Your task to perform on an android device: open app "Lyft - Rideshare, Bikes, Scooters & Transit" (install if not already installed) Image 0: 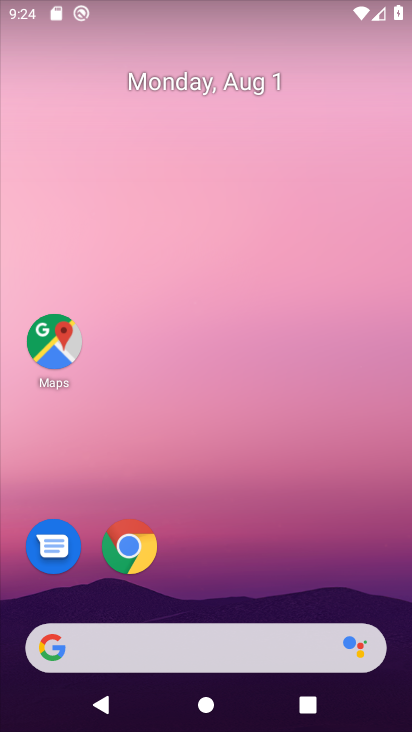
Step 0: press home button
Your task to perform on an android device: open app "Lyft - Rideshare, Bikes, Scooters & Transit" (install if not already installed) Image 1: 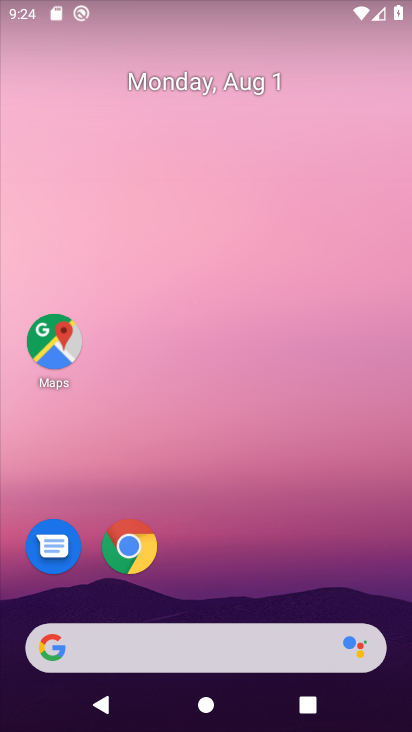
Step 1: drag from (200, 598) to (238, 0)
Your task to perform on an android device: open app "Lyft - Rideshare, Bikes, Scooters & Transit" (install if not already installed) Image 2: 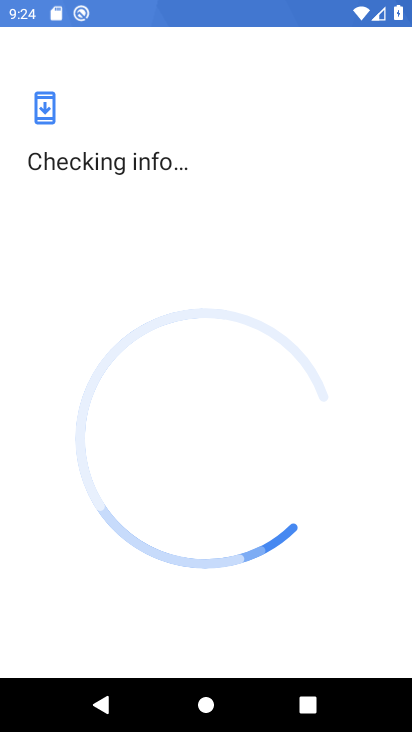
Step 2: press home button
Your task to perform on an android device: open app "Lyft - Rideshare, Bikes, Scooters & Transit" (install if not already installed) Image 3: 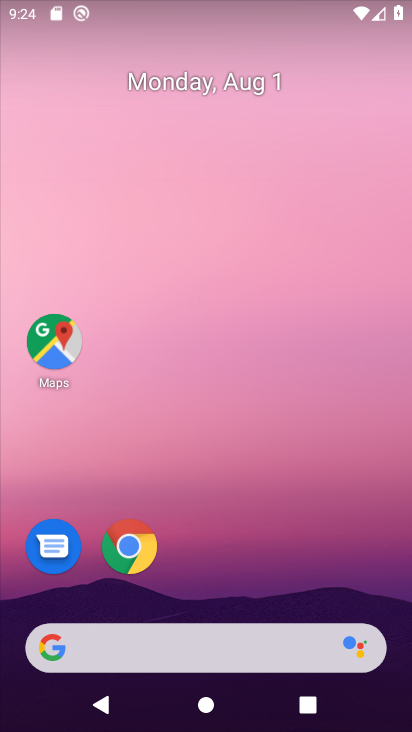
Step 3: drag from (208, 606) to (245, 2)
Your task to perform on an android device: open app "Lyft - Rideshare, Bikes, Scooters & Transit" (install if not already installed) Image 4: 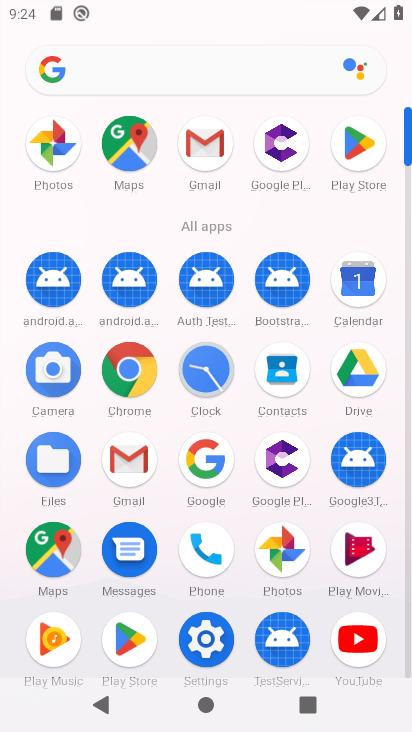
Step 4: click (353, 139)
Your task to perform on an android device: open app "Lyft - Rideshare, Bikes, Scooters & Transit" (install if not already installed) Image 5: 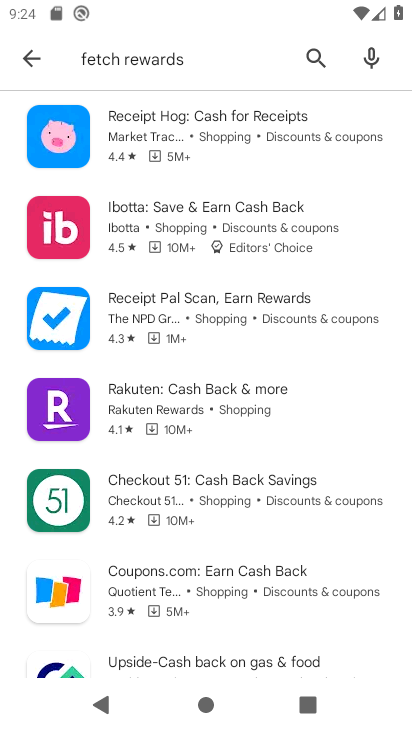
Step 5: click (313, 52)
Your task to perform on an android device: open app "Lyft - Rideshare, Bikes, Scooters & Transit" (install if not already installed) Image 6: 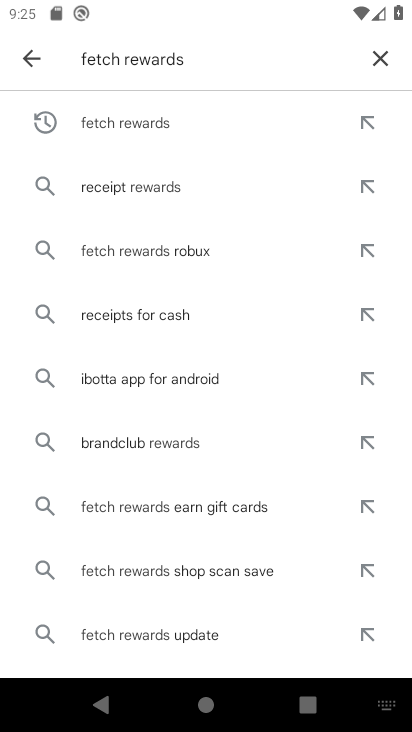
Step 6: click (384, 53)
Your task to perform on an android device: open app "Lyft - Rideshare, Bikes, Scooters & Transit" (install if not already installed) Image 7: 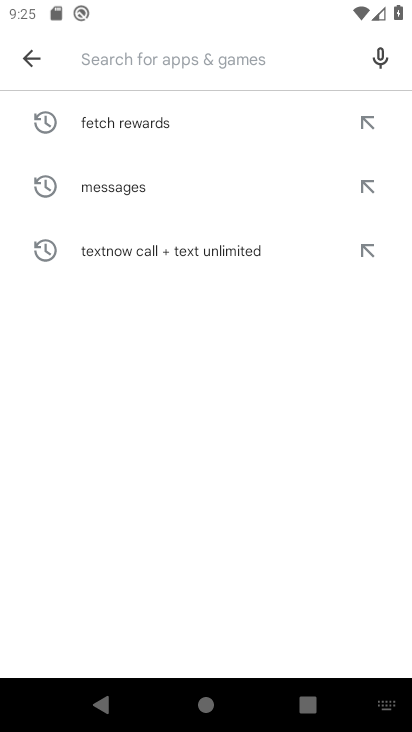
Step 7: type "Lyft"
Your task to perform on an android device: open app "Lyft - Rideshare, Bikes, Scooters & Transit" (install if not already installed) Image 8: 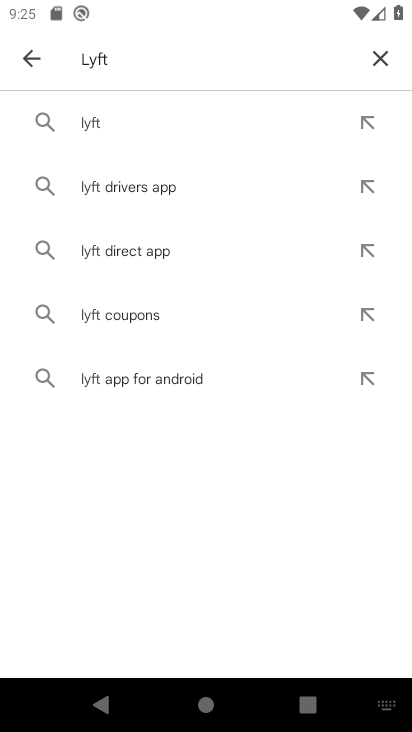
Step 8: click (109, 111)
Your task to perform on an android device: open app "Lyft - Rideshare, Bikes, Scooters & Transit" (install if not already installed) Image 9: 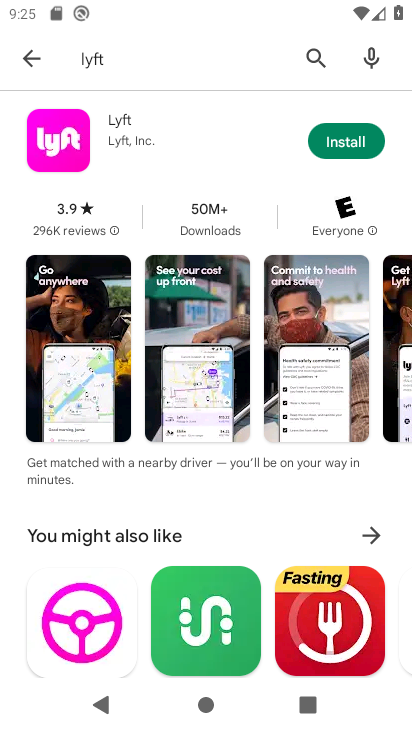
Step 9: click (337, 144)
Your task to perform on an android device: open app "Lyft - Rideshare, Bikes, Scooters & Transit" (install if not already installed) Image 10: 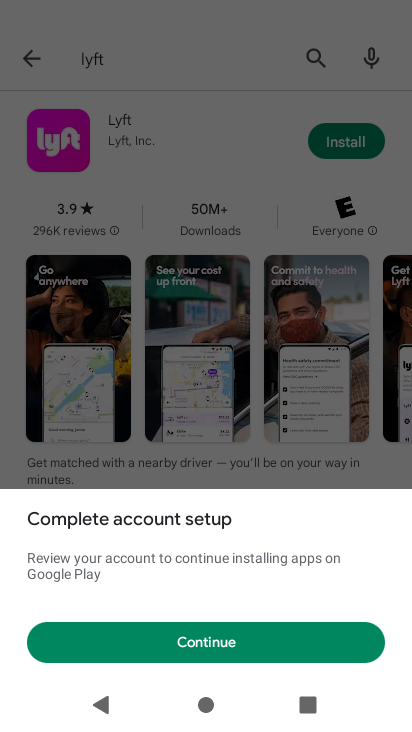
Step 10: click (205, 641)
Your task to perform on an android device: open app "Lyft - Rideshare, Bikes, Scooters & Transit" (install if not already installed) Image 11: 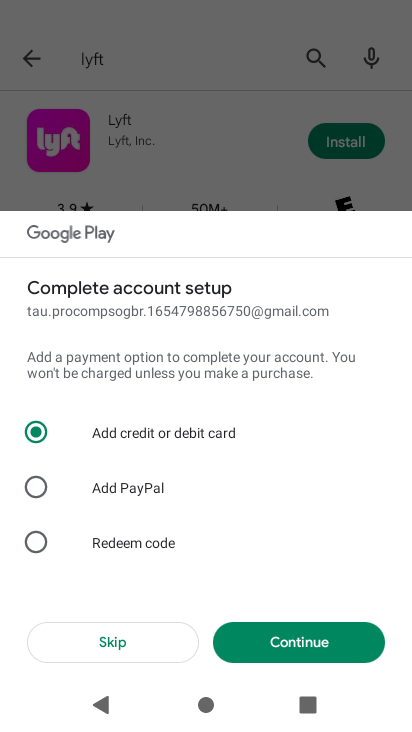
Step 11: click (109, 638)
Your task to perform on an android device: open app "Lyft - Rideshare, Bikes, Scooters & Transit" (install if not already installed) Image 12: 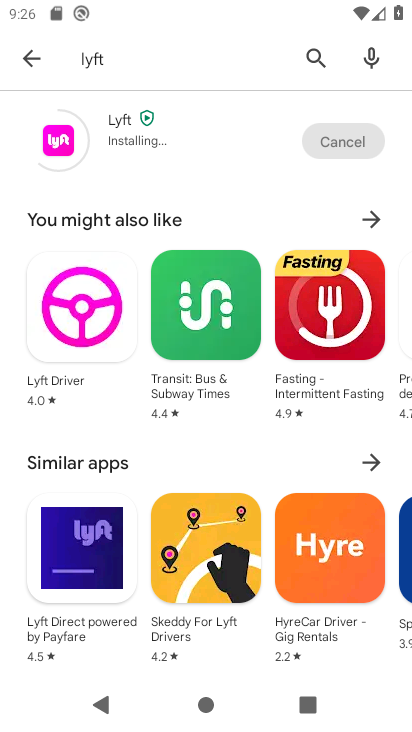
Step 12: task complete